Your task to perform on an android device: all mails in gmail Image 0: 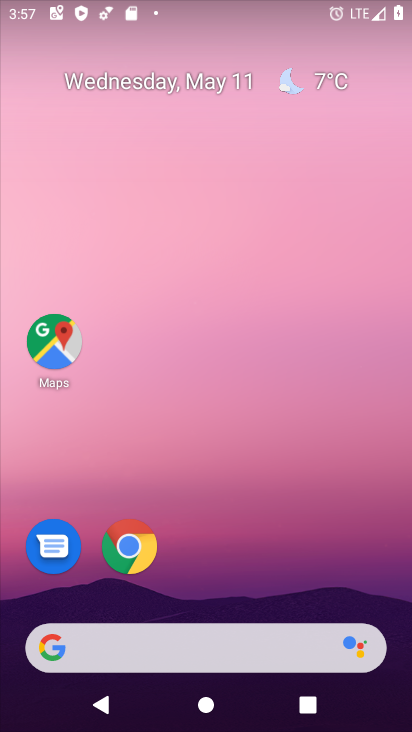
Step 0: drag from (208, 715) to (207, 252)
Your task to perform on an android device: all mails in gmail Image 1: 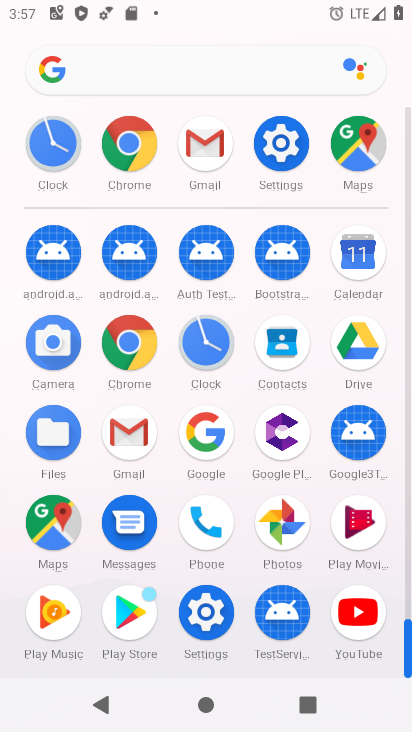
Step 1: click (115, 426)
Your task to perform on an android device: all mails in gmail Image 2: 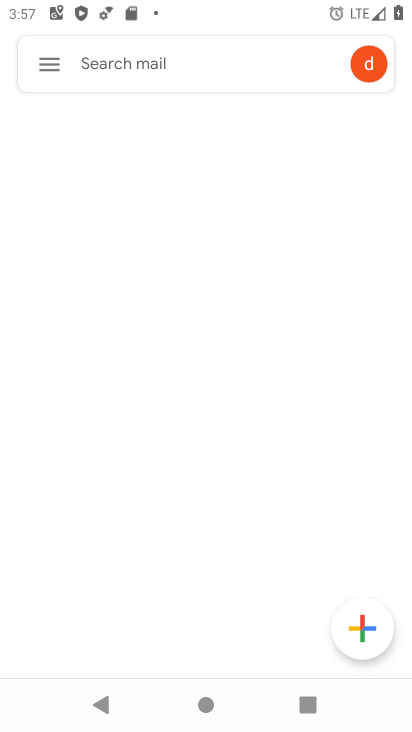
Step 2: click (67, 65)
Your task to perform on an android device: all mails in gmail Image 3: 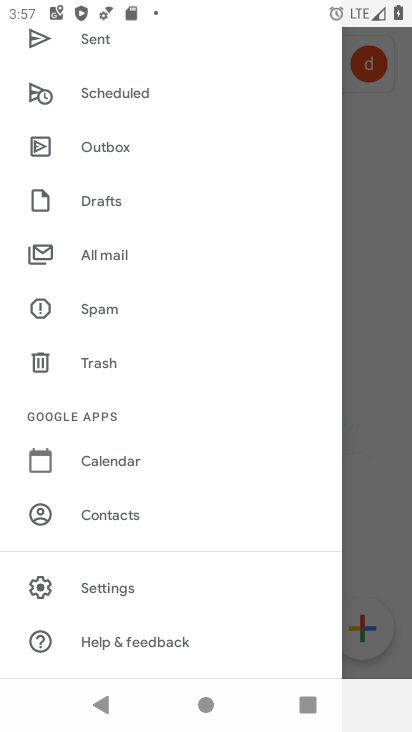
Step 3: click (135, 262)
Your task to perform on an android device: all mails in gmail Image 4: 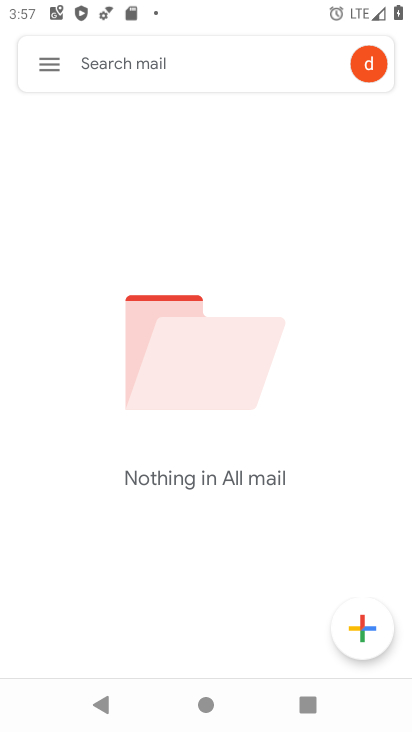
Step 4: task complete